Your task to perform on an android device: Is it going to rain tomorrow? Image 0: 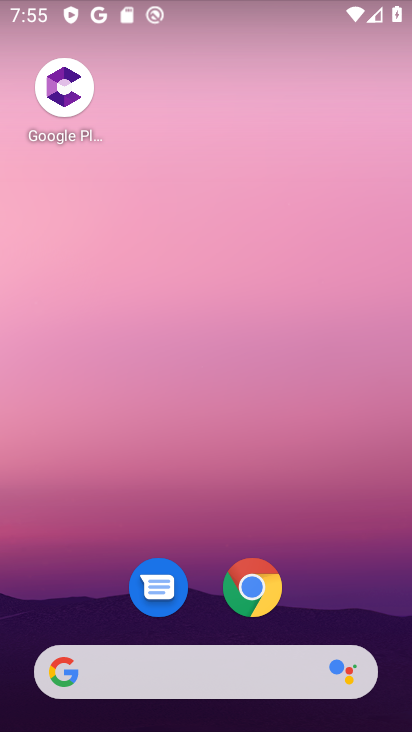
Step 0: click (178, 659)
Your task to perform on an android device: Is it going to rain tomorrow? Image 1: 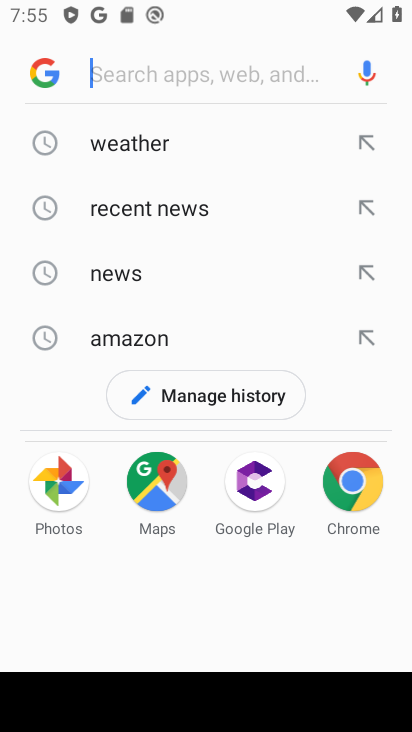
Step 1: click (114, 142)
Your task to perform on an android device: Is it going to rain tomorrow? Image 2: 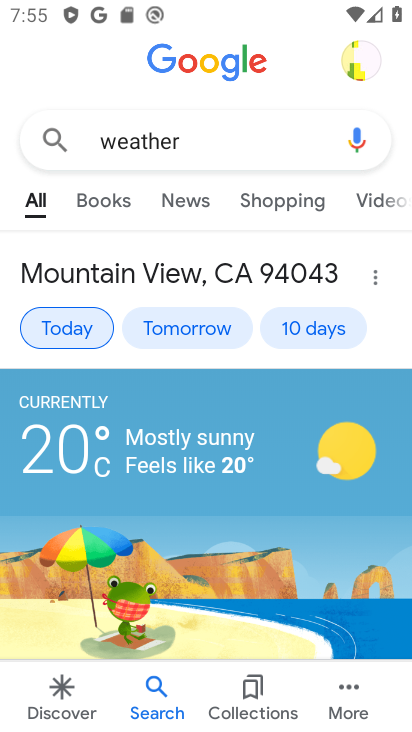
Step 2: click (189, 323)
Your task to perform on an android device: Is it going to rain tomorrow? Image 3: 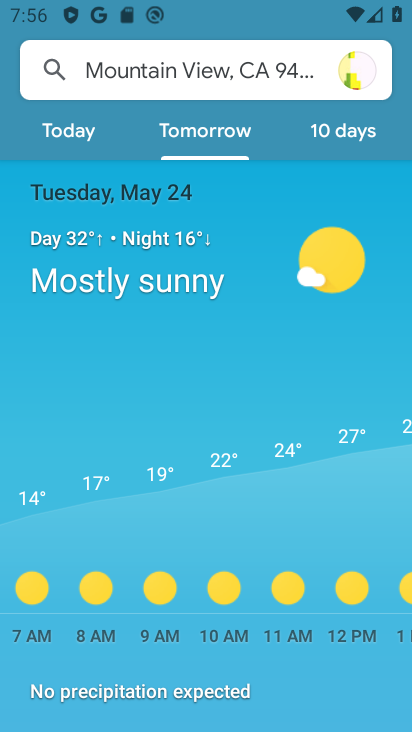
Step 3: task complete